Your task to perform on an android device: open app "Airtel Thanks" (install if not already installed) Image 0: 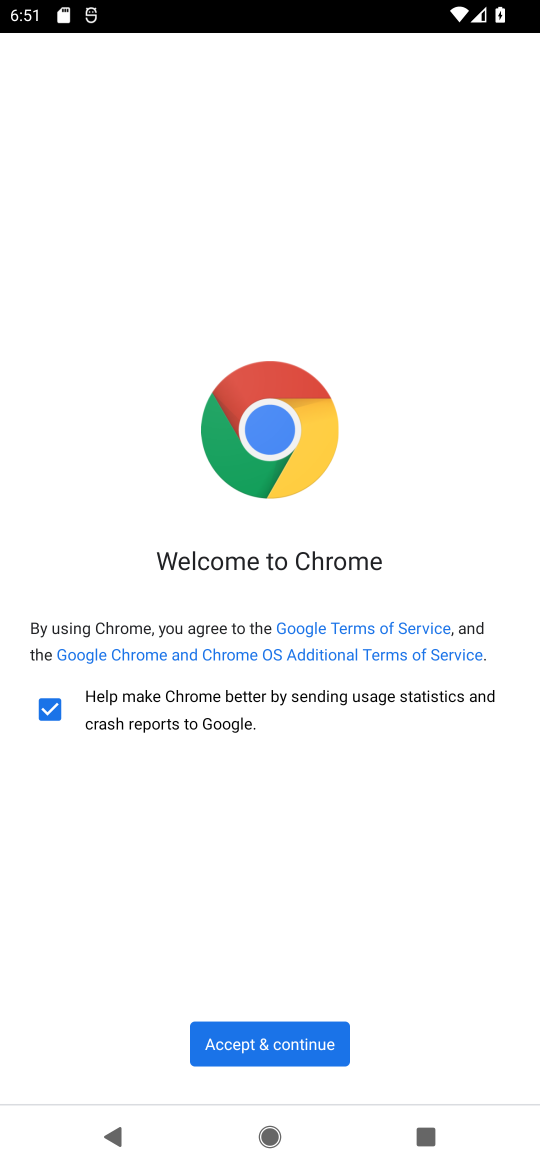
Step 0: press home button
Your task to perform on an android device: open app "Airtel Thanks" (install if not already installed) Image 1: 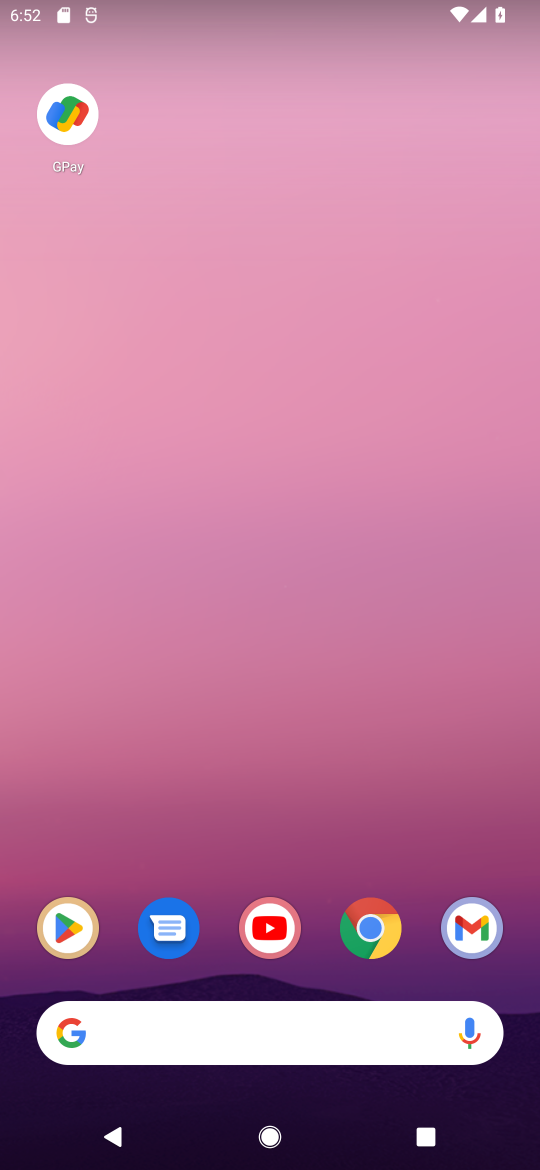
Step 1: click (73, 927)
Your task to perform on an android device: open app "Airtel Thanks" (install if not already installed) Image 2: 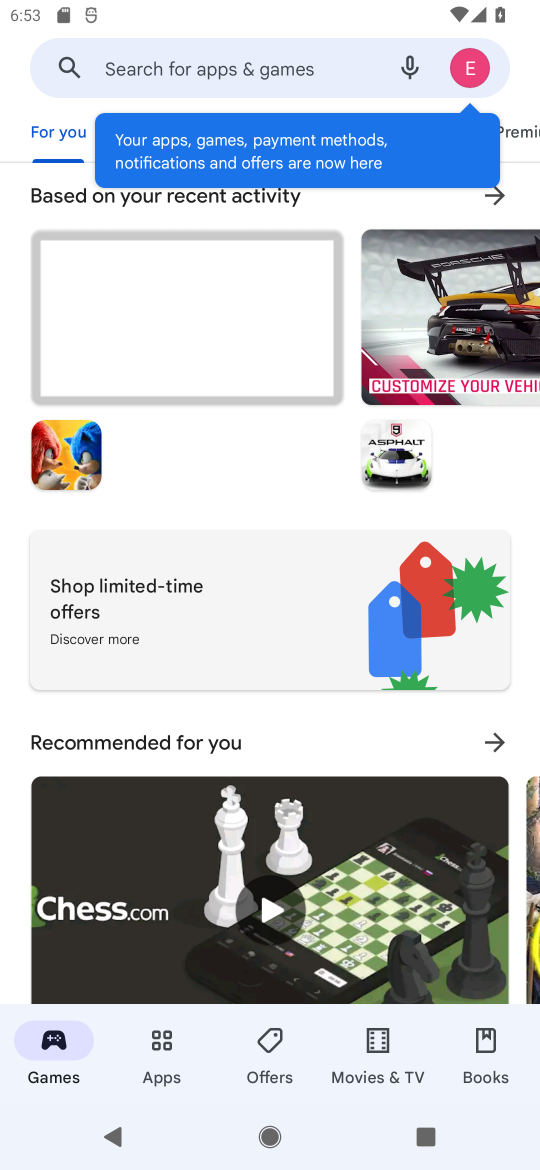
Step 2: click (285, 70)
Your task to perform on an android device: open app "Airtel Thanks" (install if not already installed) Image 3: 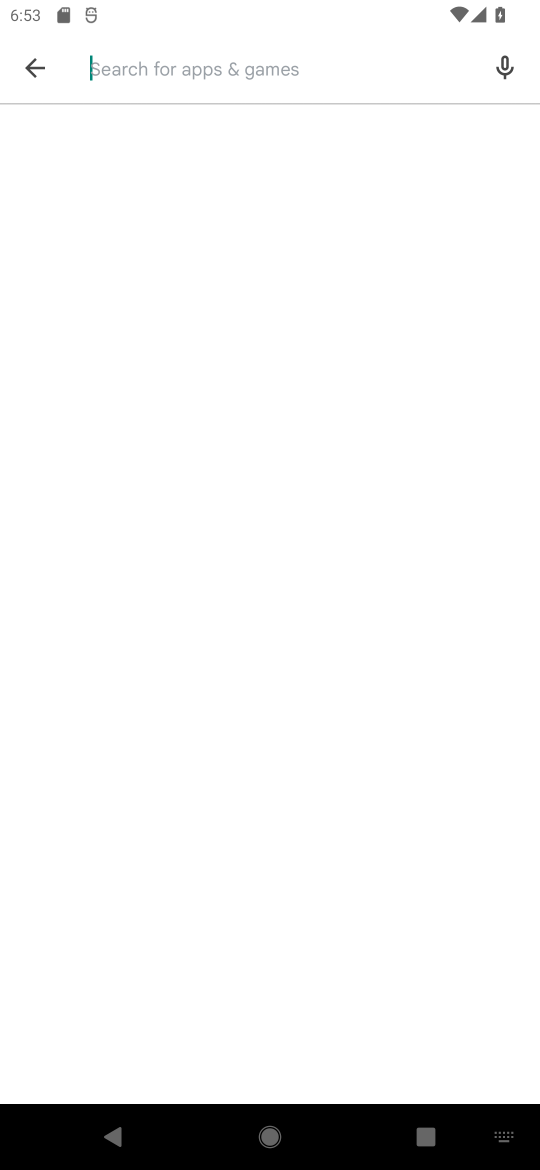
Step 3: type "airtel thanks "
Your task to perform on an android device: open app "Airtel Thanks" (install if not already installed) Image 4: 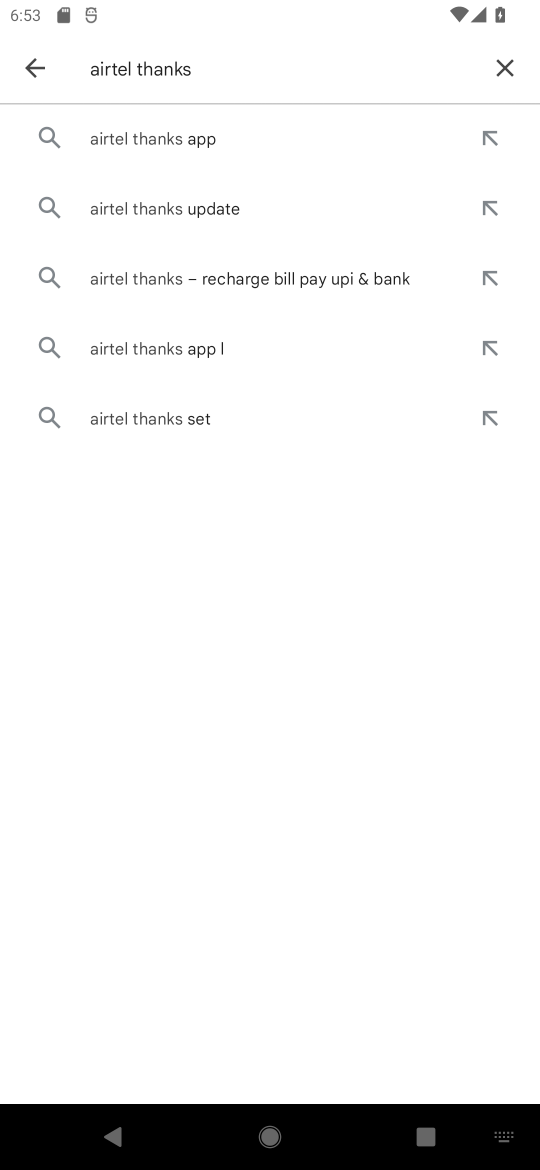
Step 4: click (162, 128)
Your task to perform on an android device: open app "Airtel Thanks" (install if not already installed) Image 5: 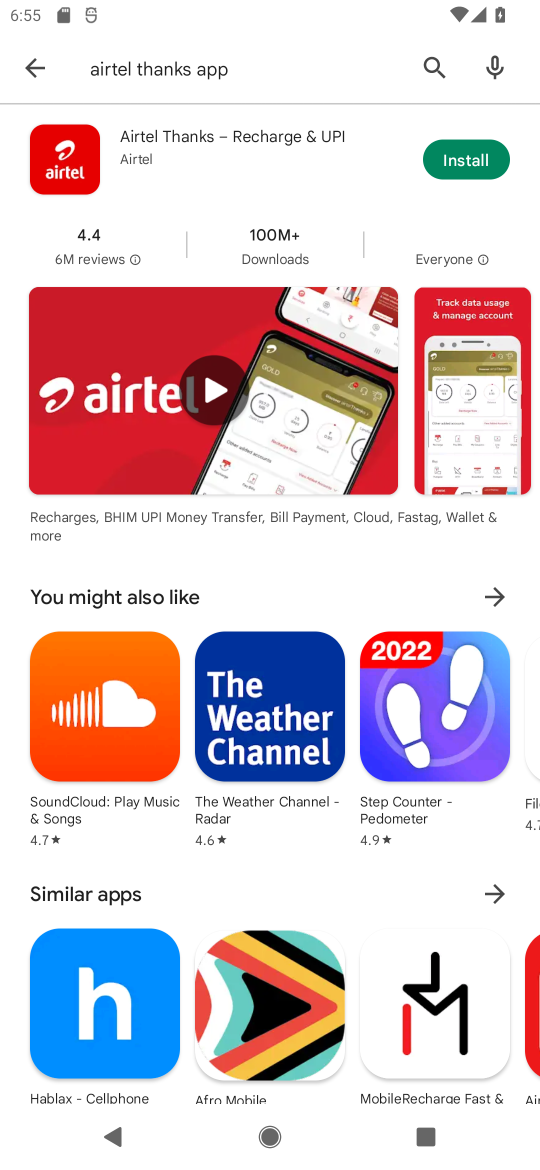
Step 5: click (476, 167)
Your task to perform on an android device: open app "Airtel Thanks" (install if not already installed) Image 6: 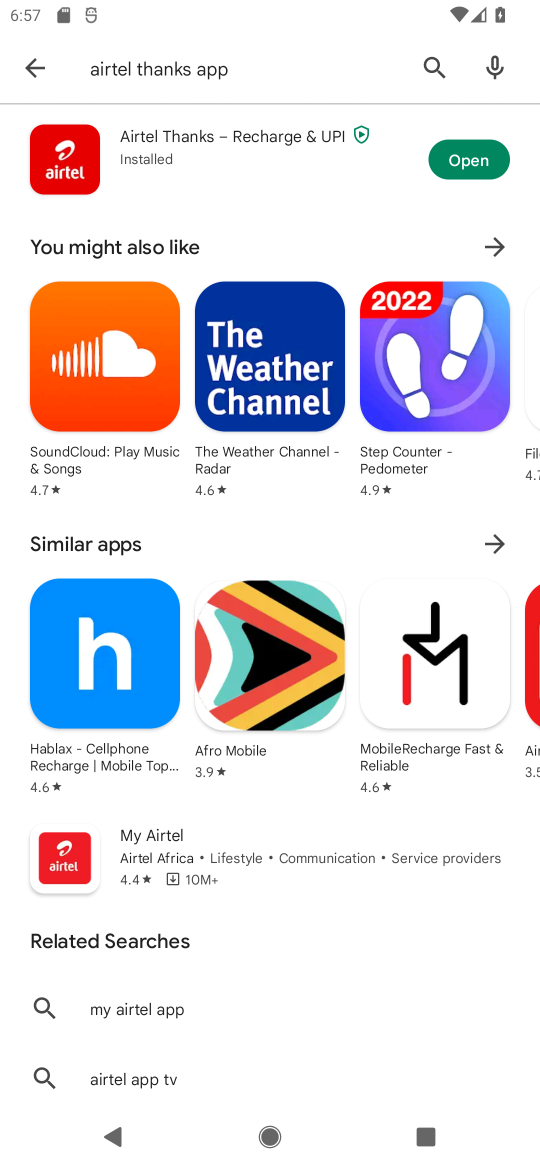
Step 6: click (469, 166)
Your task to perform on an android device: open app "Airtel Thanks" (install if not already installed) Image 7: 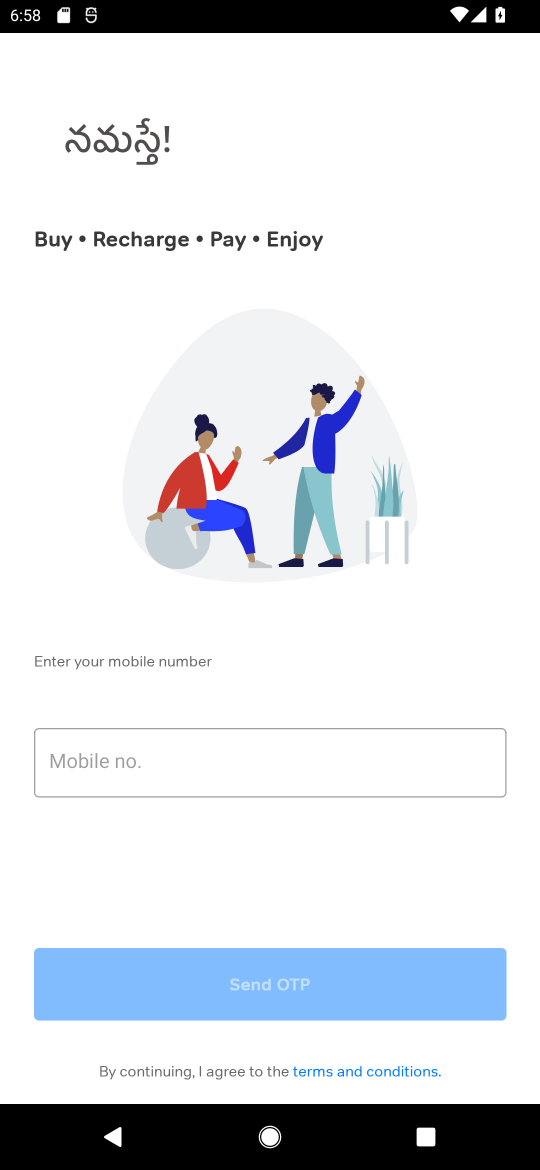
Step 7: task complete